Your task to perform on an android device: Open the Play Movies app and select the watchlist tab. Image 0: 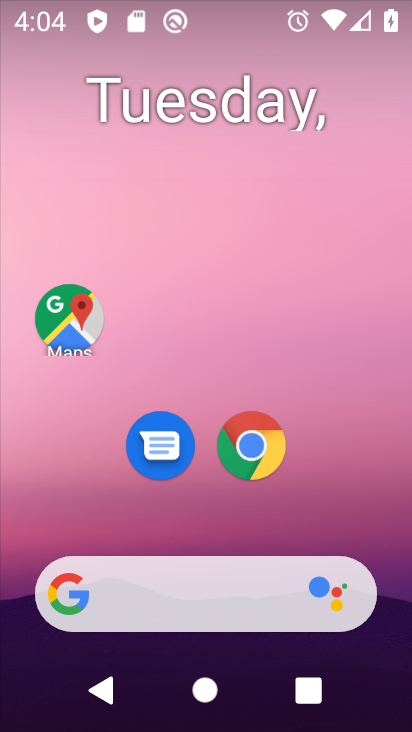
Step 0: drag from (316, 530) to (346, 217)
Your task to perform on an android device: Open the Play Movies app and select the watchlist tab. Image 1: 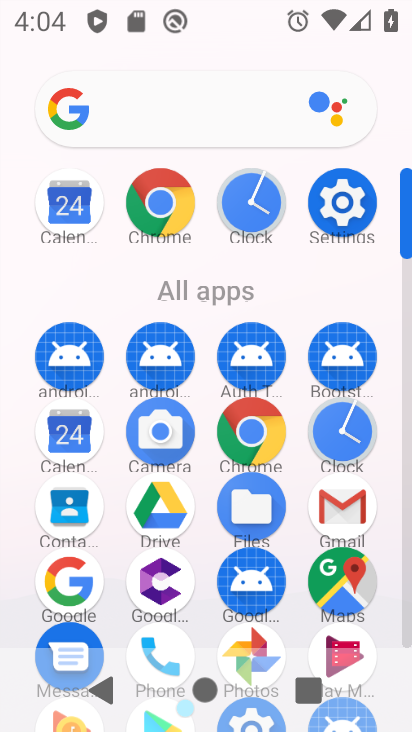
Step 1: click (332, 642)
Your task to perform on an android device: Open the Play Movies app and select the watchlist tab. Image 2: 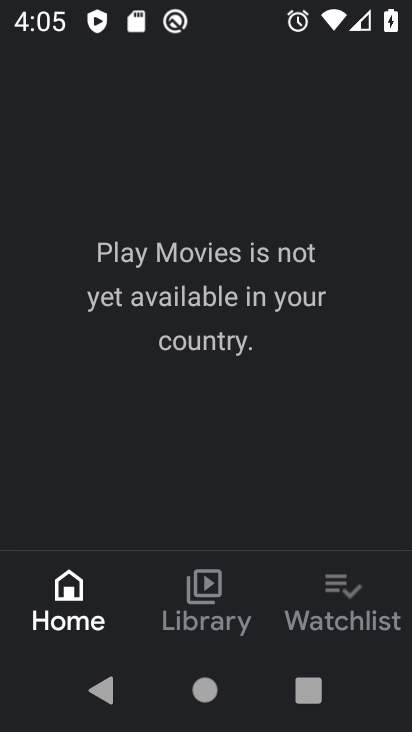
Step 2: click (350, 576)
Your task to perform on an android device: Open the Play Movies app and select the watchlist tab. Image 3: 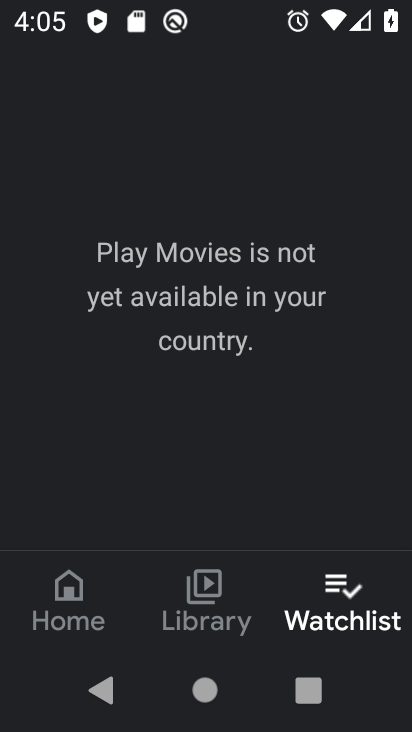
Step 3: task complete